Your task to perform on an android device: set the timer Image 0: 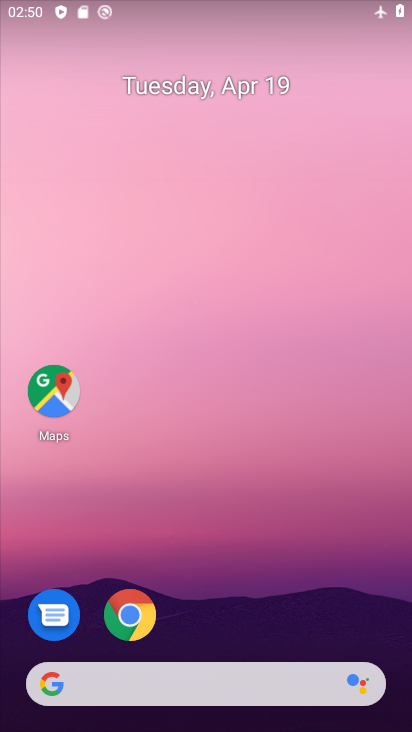
Step 0: click (227, 212)
Your task to perform on an android device: set the timer Image 1: 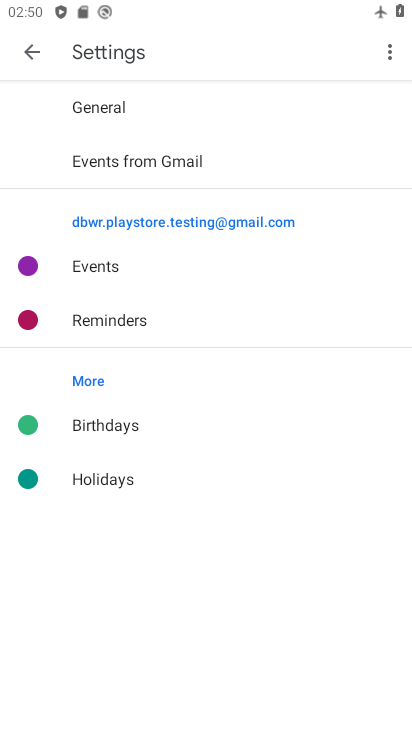
Step 1: click (35, 49)
Your task to perform on an android device: set the timer Image 2: 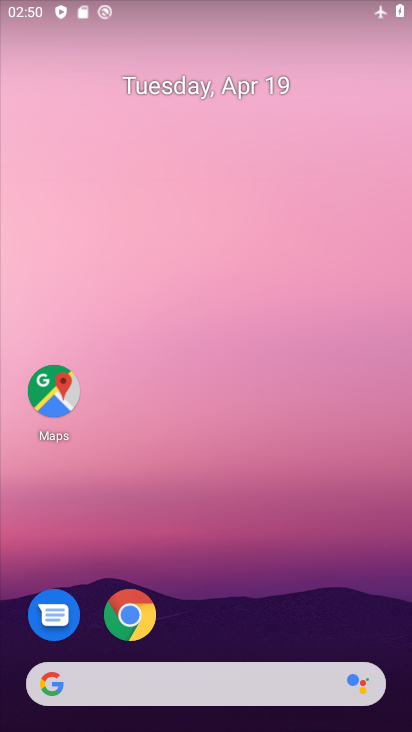
Step 2: drag from (217, 557) to (230, 92)
Your task to perform on an android device: set the timer Image 3: 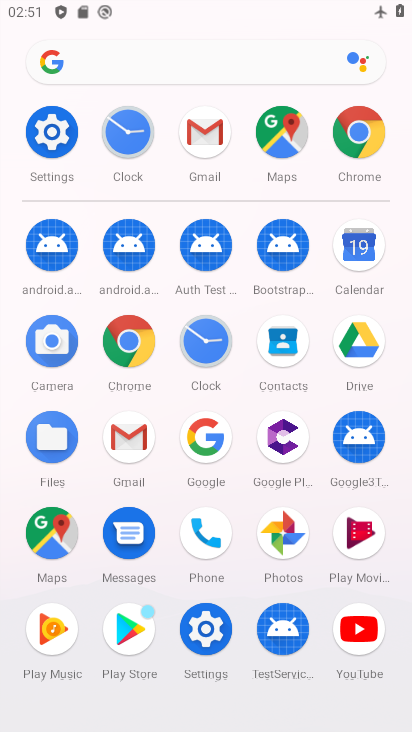
Step 3: click (200, 334)
Your task to perform on an android device: set the timer Image 4: 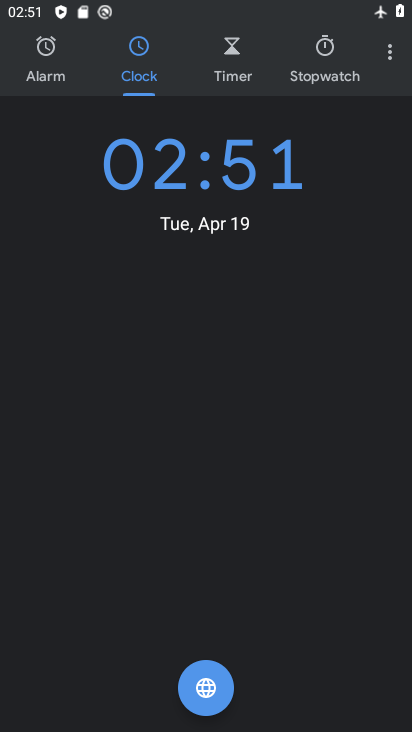
Step 4: click (227, 55)
Your task to perform on an android device: set the timer Image 5: 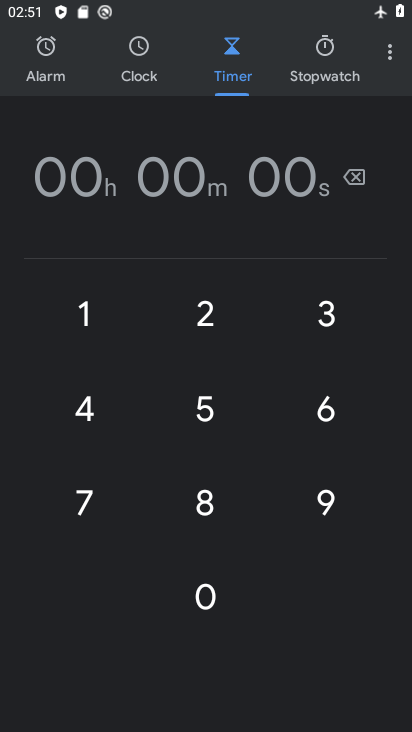
Step 5: click (67, 180)
Your task to perform on an android device: set the timer Image 6: 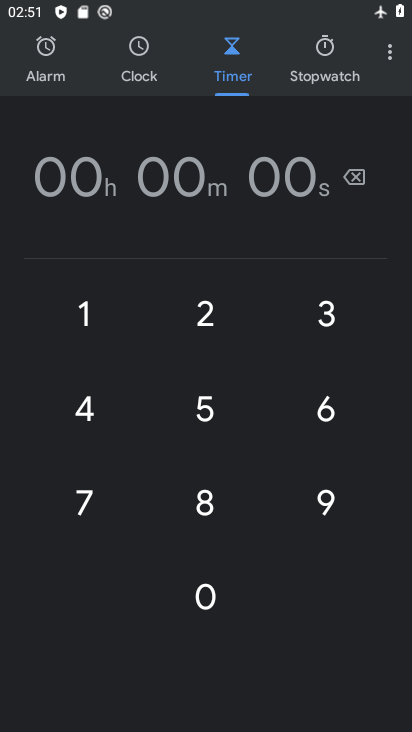
Step 6: type "9"
Your task to perform on an android device: set the timer Image 7: 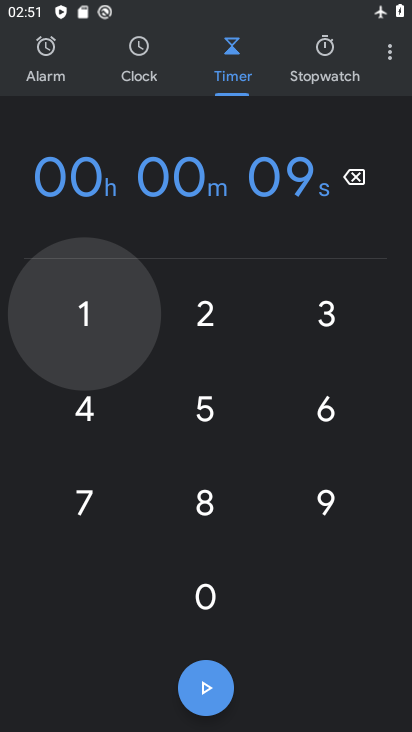
Step 7: type "9"
Your task to perform on an android device: set the timer Image 8: 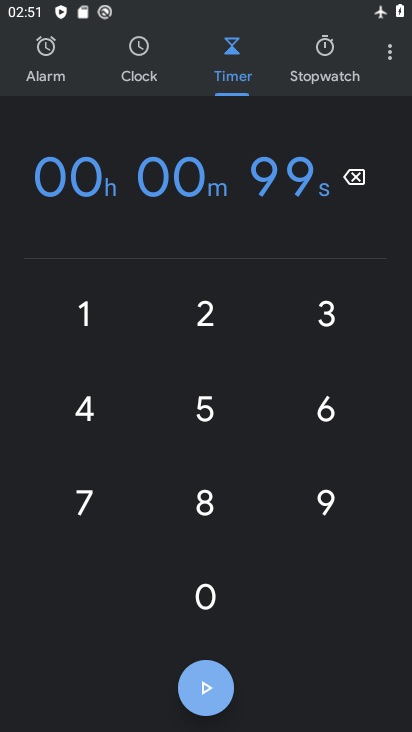
Step 8: type "88"
Your task to perform on an android device: set the timer Image 9: 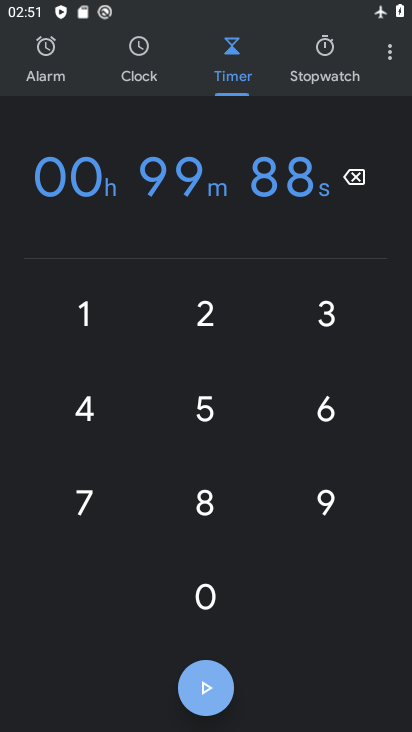
Step 9: type "66"
Your task to perform on an android device: set the timer Image 10: 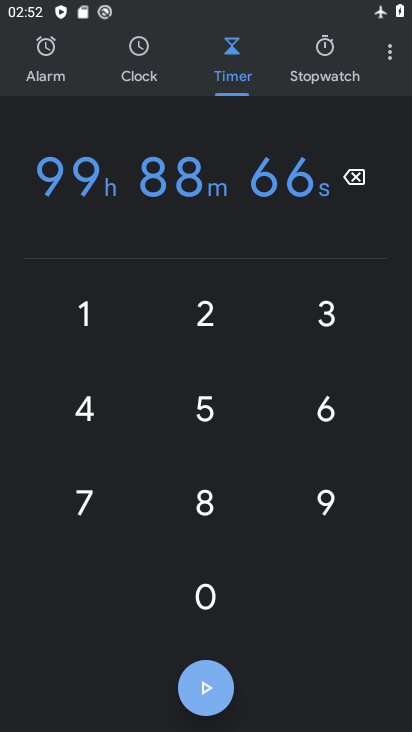
Step 10: click (210, 696)
Your task to perform on an android device: set the timer Image 11: 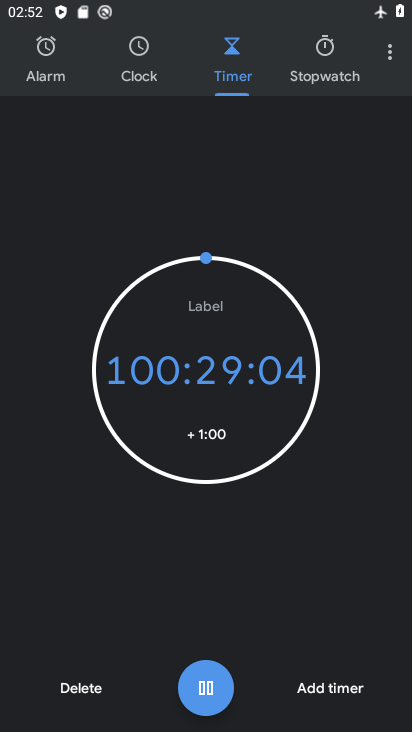
Step 11: click (210, 694)
Your task to perform on an android device: set the timer Image 12: 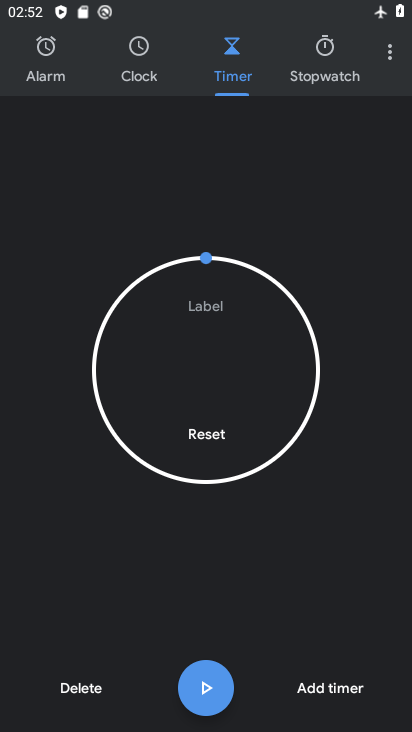
Step 12: task complete